Your task to perform on an android device: empty trash in the gmail app Image 0: 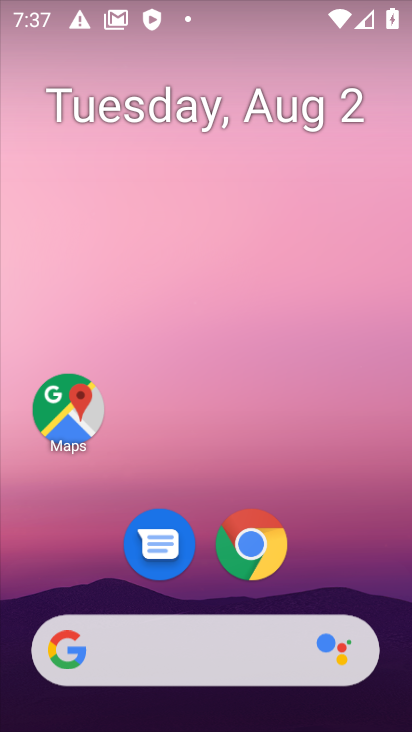
Step 0: drag from (240, 407) to (229, 10)
Your task to perform on an android device: empty trash in the gmail app Image 1: 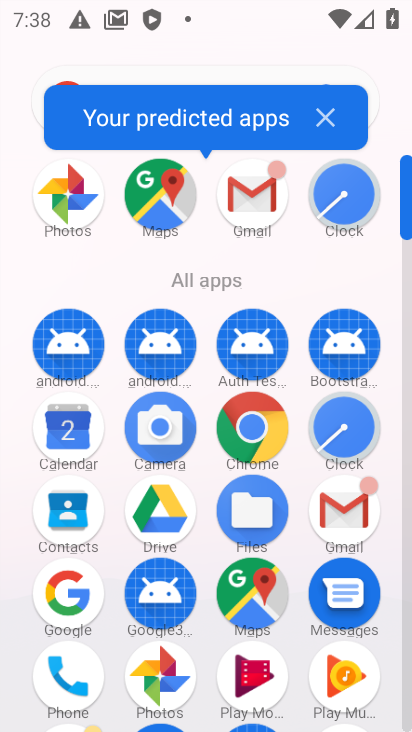
Step 1: click (357, 506)
Your task to perform on an android device: empty trash in the gmail app Image 2: 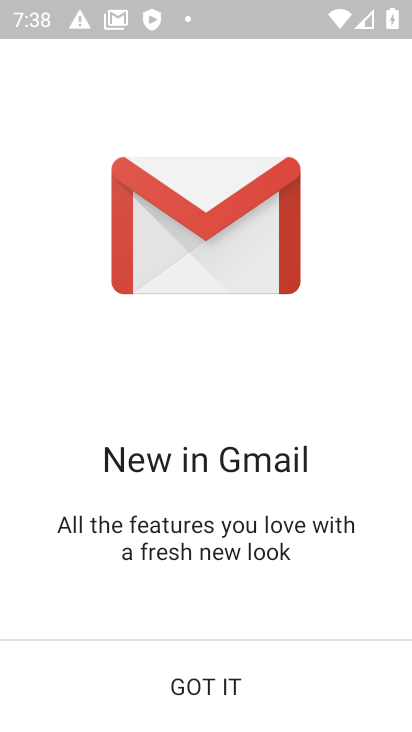
Step 2: click (206, 685)
Your task to perform on an android device: empty trash in the gmail app Image 3: 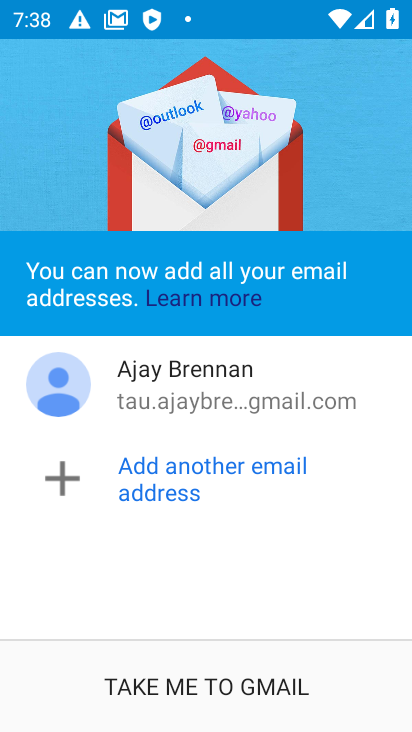
Step 3: click (220, 683)
Your task to perform on an android device: empty trash in the gmail app Image 4: 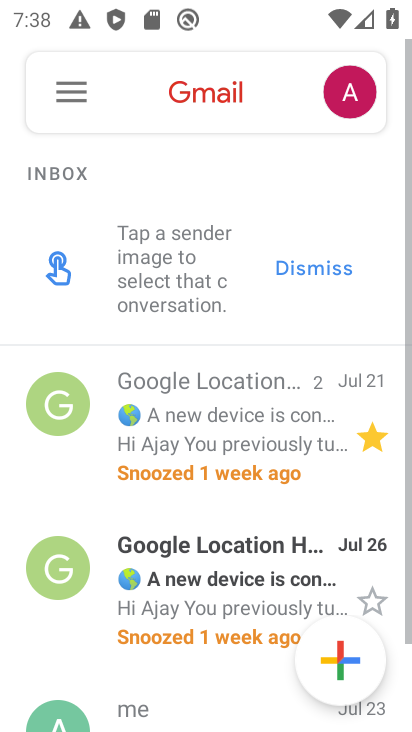
Step 4: click (61, 91)
Your task to perform on an android device: empty trash in the gmail app Image 5: 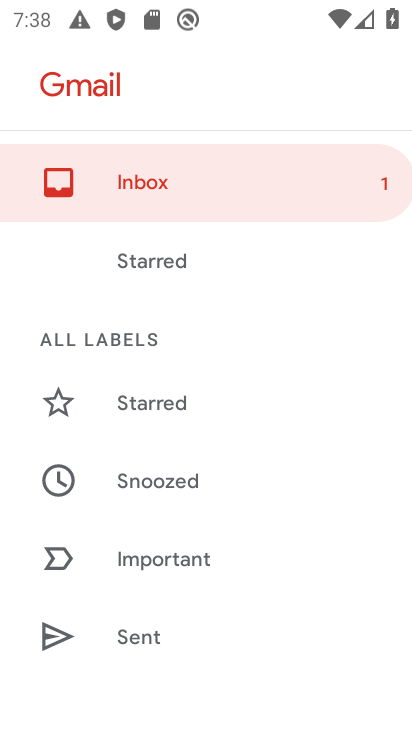
Step 5: drag from (191, 648) to (218, 160)
Your task to perform on an android device: empty trash in the gmail app Image 6: 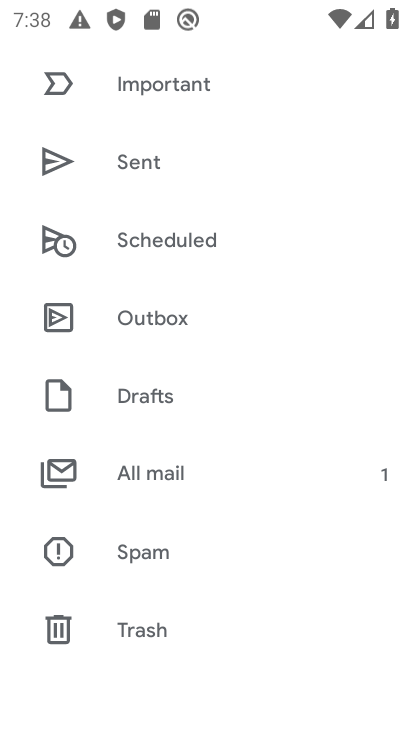
Step 6: click (147, 632)
Your task to perform on an android device: empty trash in the gmail app Image 7: 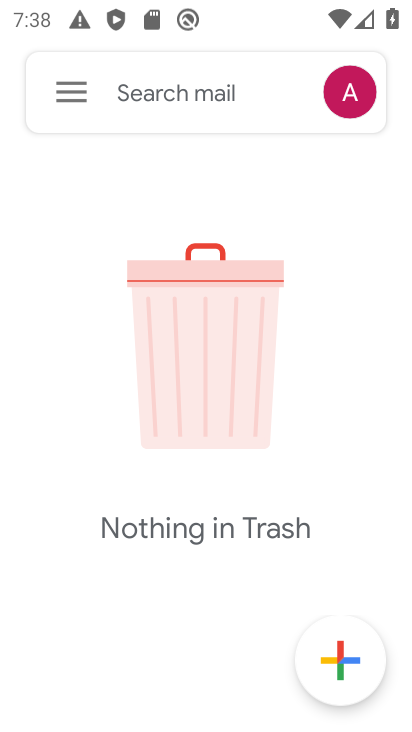
Step 7: task complete